Your task to perform on an android device: turn off picture-in-picture Image 0: 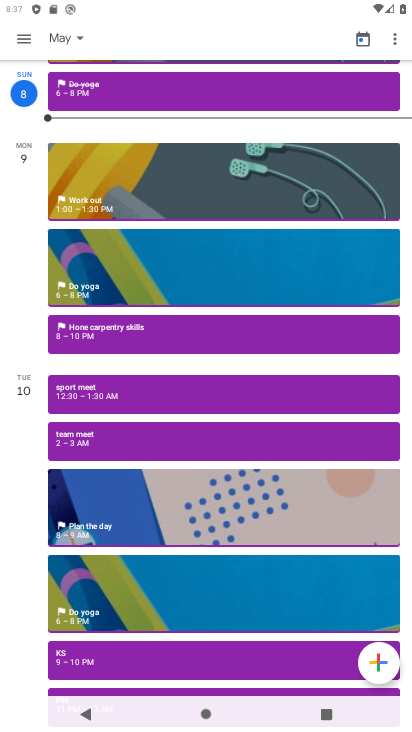
Step 0: press back button
Your task to perform on an android device: turn off picture-in-picture Image 1: 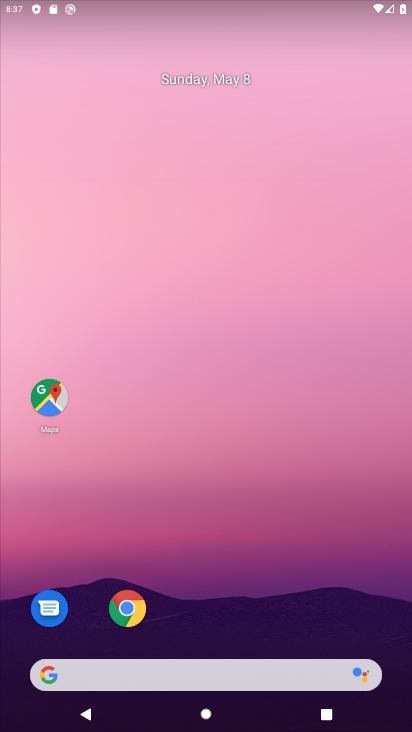
Step 1: click (126, 609)
Your task to perform on an android device: turn off picture-in-picture Image 2: 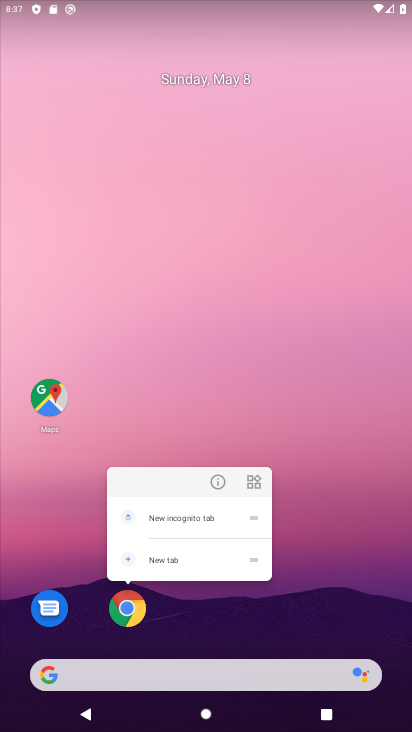
Step 2: click (215, 480)
Your task to perform on an android device: turn off picture-in-picture Image 3: 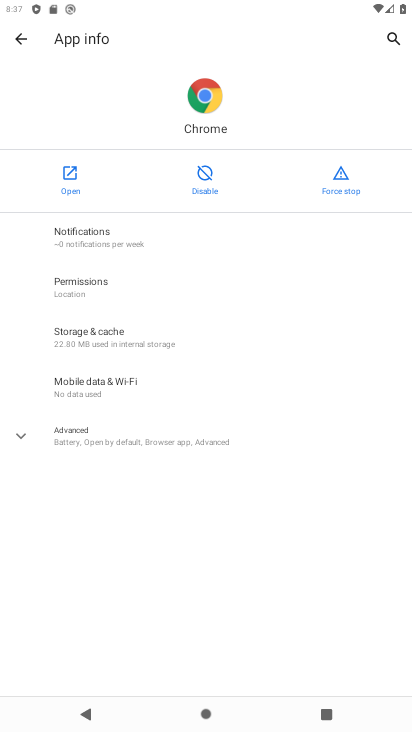
Step 3: click (74, 437)
Your task to perform on an android device: turn off picture-in-picture Image 4: 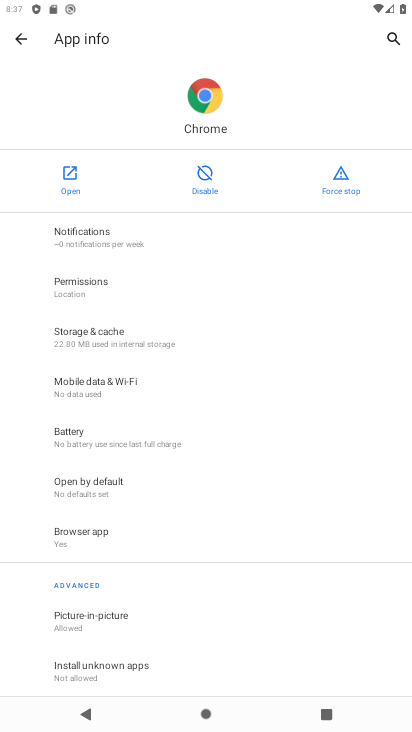
Step 4: drag from (124, 532) to (173, 423)
Your task to perform on an android device: turn off picture-in-picture Image 5: 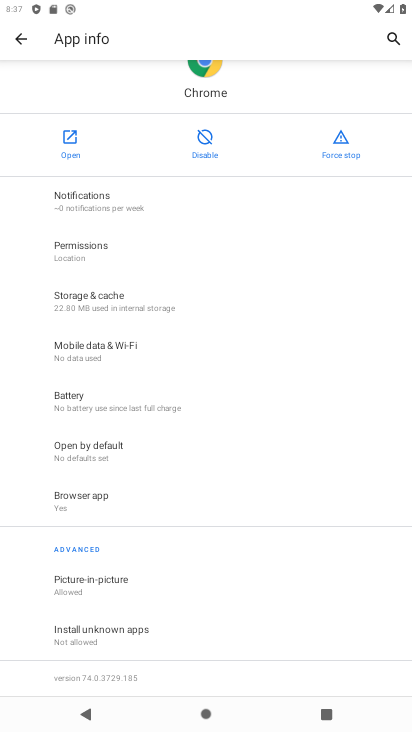
Step 5: click (102, 574)
Your task to perform on an android device: turn off picture-in-picture Image 6: 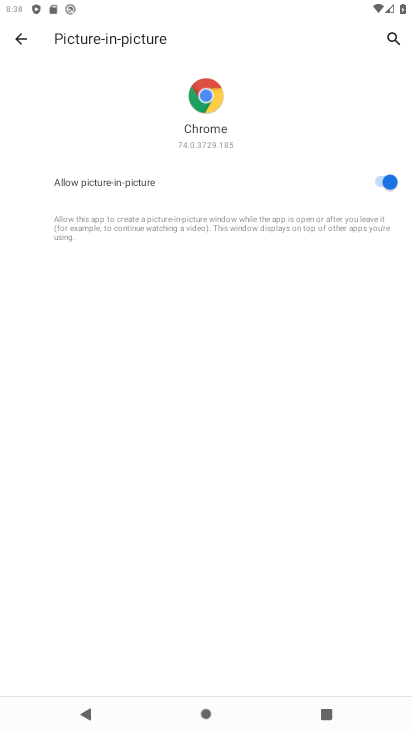
Step 6: click (385, 175)
Your task to perform on an android device: turn off picture-in-picture Image 7: 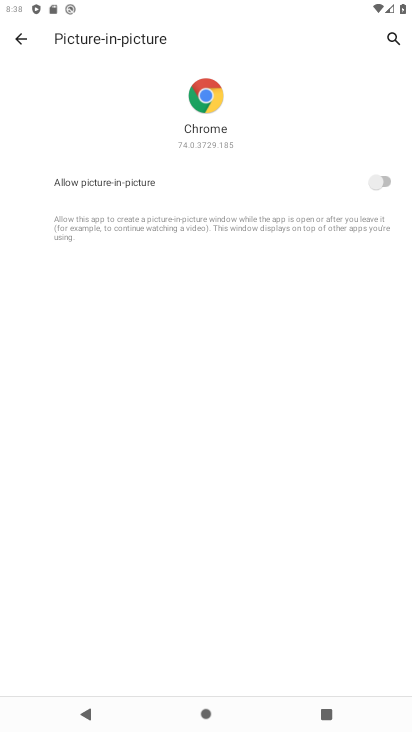
Step 7: task complete